Your task to perform on an android device: Open Chrome and go to settings Image 0: 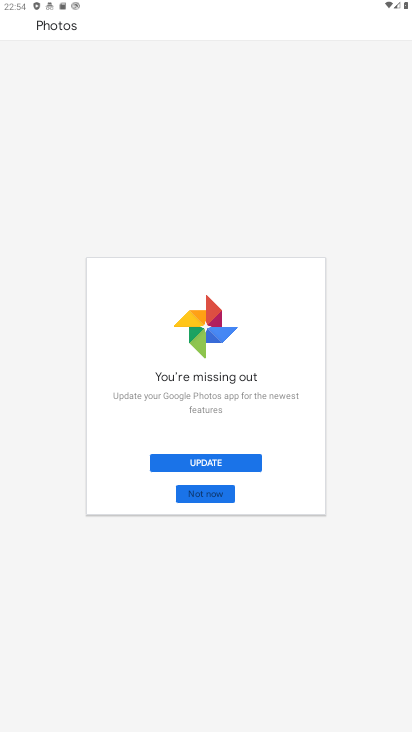
Step 0: click (199, 480)
Your task to perform on an android device: Open Chrome and go to settings Image 1: 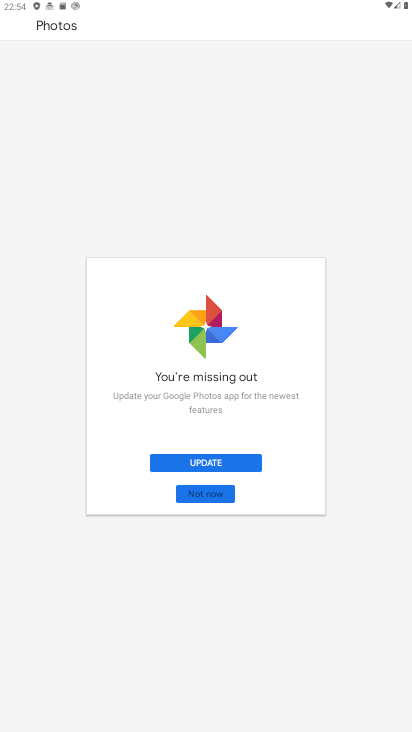
Step 1: click (208, 485)
Your task to perform on an android device: Open Chrome and go to settings Image 2: 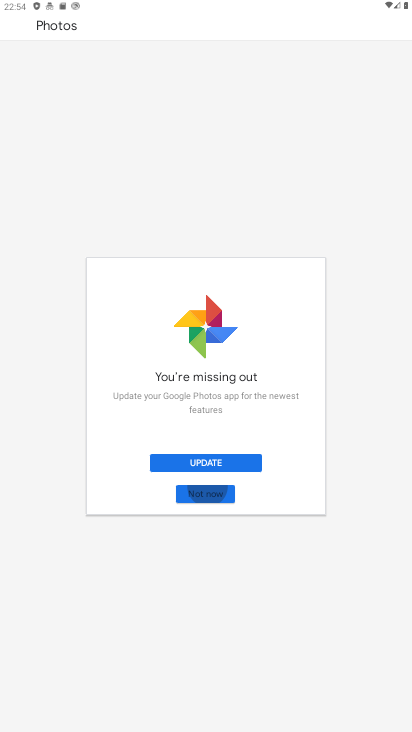
Step 2: click (212, 486)
Your task to perform on an android device: Open Chrome and go to settings Image 3: 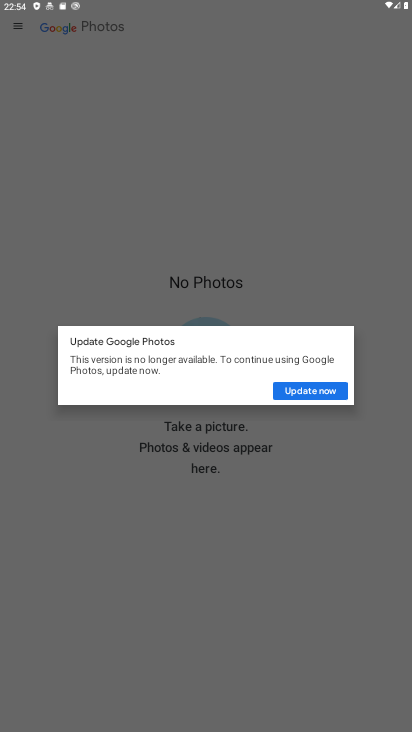
Step 3: click (308, 213)
Your task to perform on an android device: Open Chrome and go to settings Image 4: 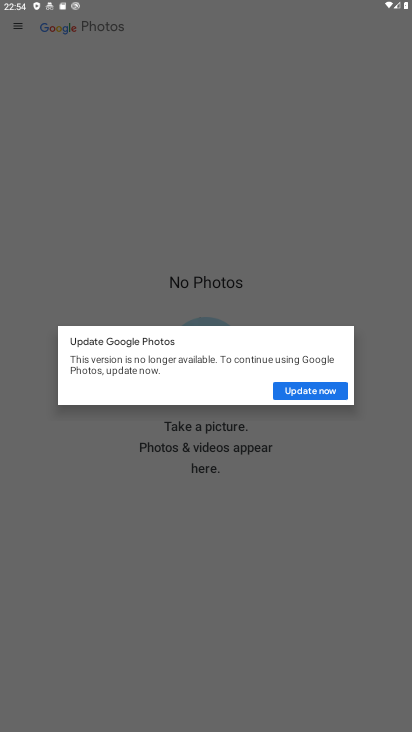
Step 4: click (308, 213)
Your task to perform on an android device: Open Chrome and go to settings Image 5: 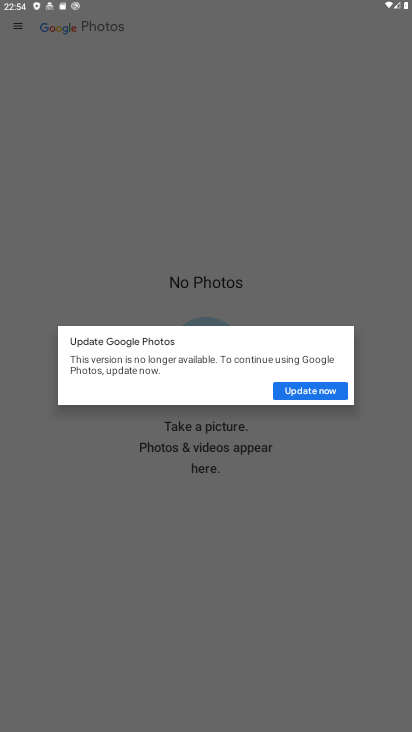
Step 5: task complete